Your task to perform on an android device: Add "razer kraken" to the cart on target Image 0: 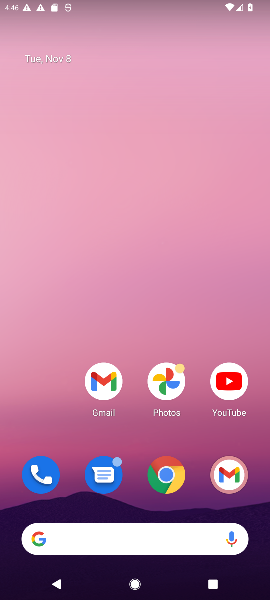
Step 0: drag from (84, 522) to (93, 77)
Your task to perform on an android device: Add "razer kraken" to the cart on target Image 1: 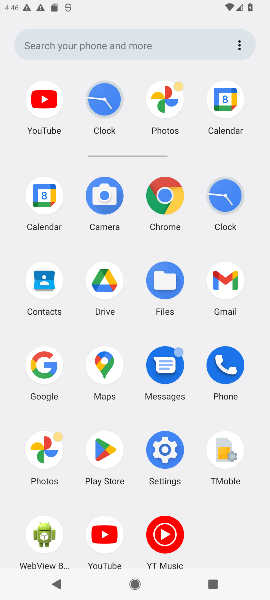
Step 1: click (42, 363)
Your task to perform on an android device: Add "razer kraken" to the cart on target Image 2: 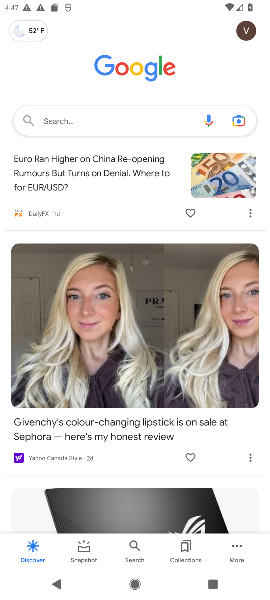
Step 2: click (117, 119)
Your task to perform on an android device: Add "razer kraken" to the cart on target Image 3: 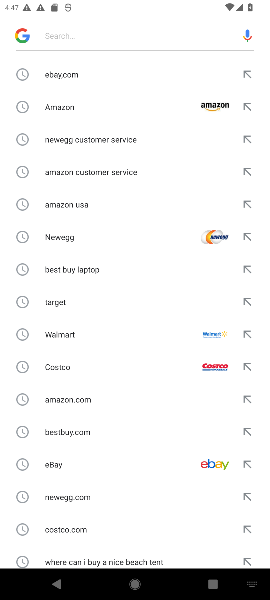
Step 3: type "target "
Your task to perform on an android device: Add "razer kraken" to the cart on target Image 4: 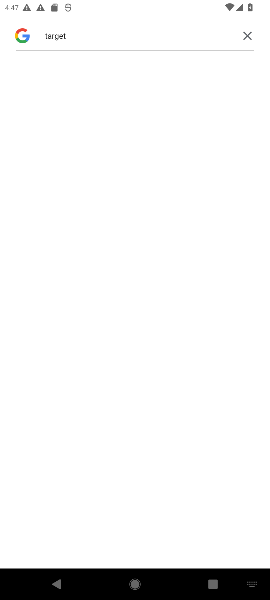
Step 4: click (239, 37)
Your task to perform on an android device: Add "razer kraken" to the cart on target Image 5: 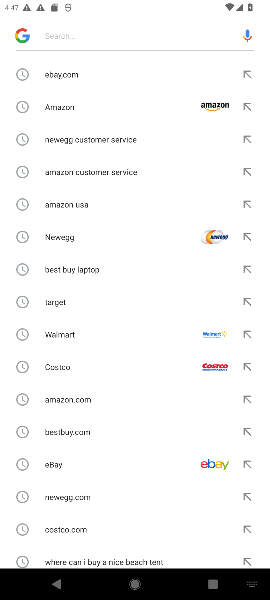
Step 5: click (129, 15)
Your task to perform on an android device: Add "razer kraken" to the cart on target Image 6: 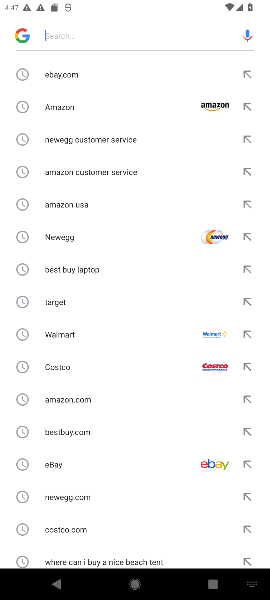
Step 6: type "target "
Your task to perform on an android device: Add "razer kraken" to the cart on target Image 7: 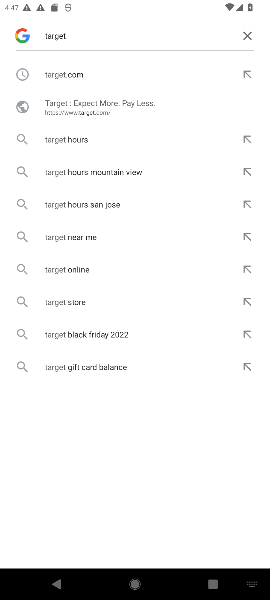
Step 7: click (64, 69)
Your task to perform on an android device: Add "razer kraken" to the cart on target Image 8: 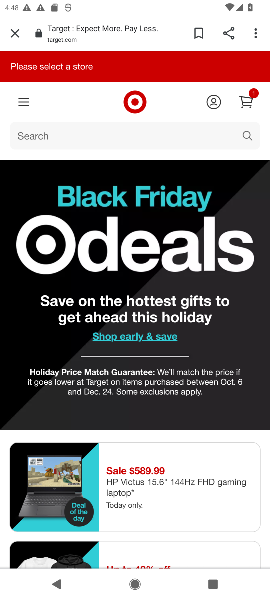
Step 8: click (87, 130)
Your task to perform on an android device: Add "razer kraken" to the cart on target Image 9: 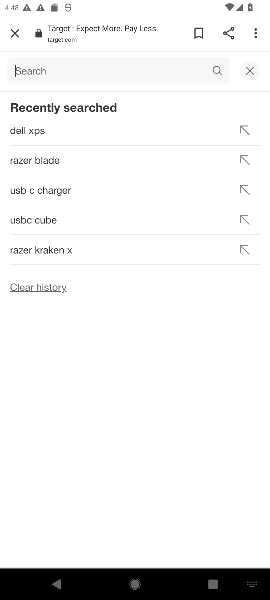
Step 9: type "razer kraken "
Your task to perform on an android device: Add "razer kraken" to the cart on target Image 10: 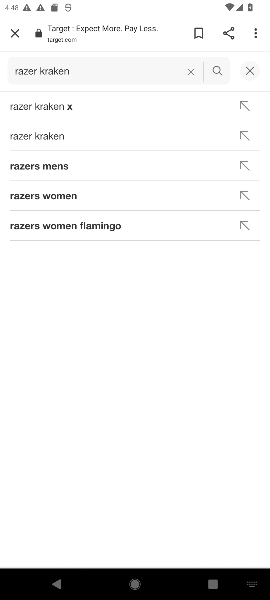
Step 10: click (58, 101)
Your task to perform on an android device: Add "razer kraken" to the cart on target Image 11: 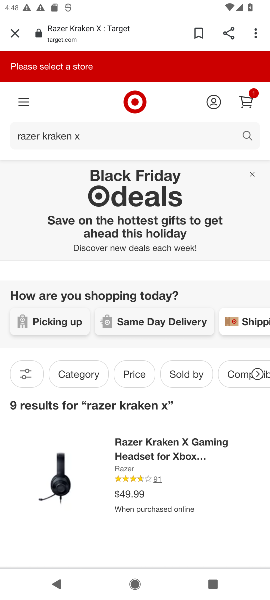
Step 11: click (162, 453)
Your task to perform on an android device: Add "razer kraken" to the cart on target Image 12: 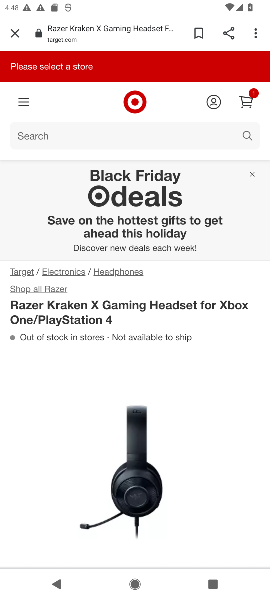
Step 12: drag from (154, 546) to (157, 162)
Your task to perform on an android device: Add "razer kraken" to the cart on target Image 13: 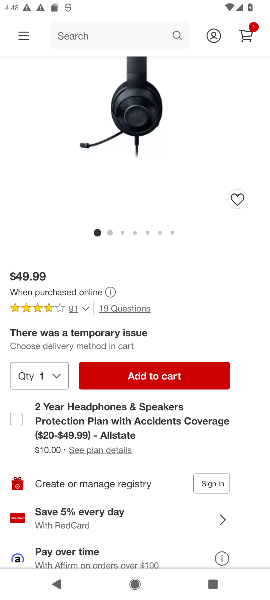
Step 13: click (160, 374)
Your task to perform on an android device: Add "razer kraken" to the cart on target Image 14: 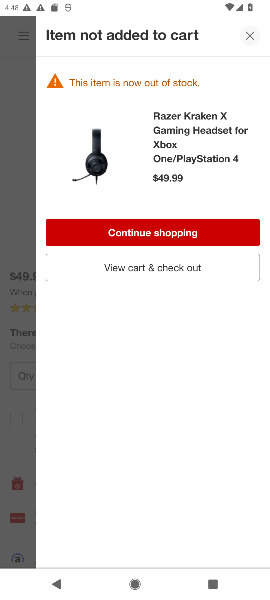
Step 14: task complete